Your task to perform on an android device: Search for "panasonic triple a" on walmart, select the first entry, and add it to the cart. Image 0: 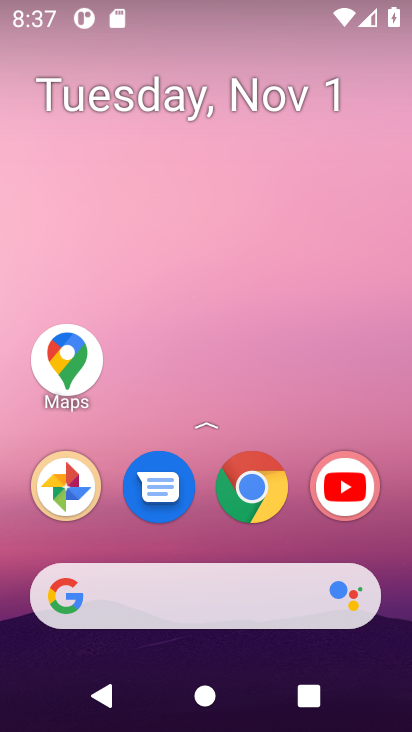
Step 0: press home button
Your task to perform on an android device: Search for "panasonic triple a" on walmart, select the first entry, and add it to the cart. Image 1: 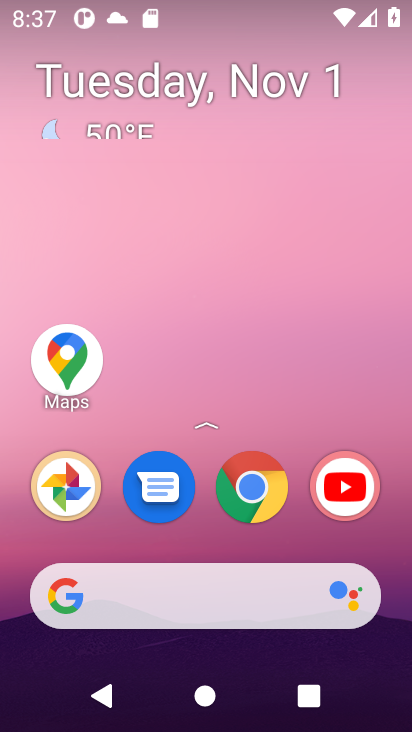
Step 1: drag from (225, 414) to (242, 1)
Your task to perform on an android device: Search for "panasonic triple a" on walmart, select the first entry, and add it to the cart. Image 2: 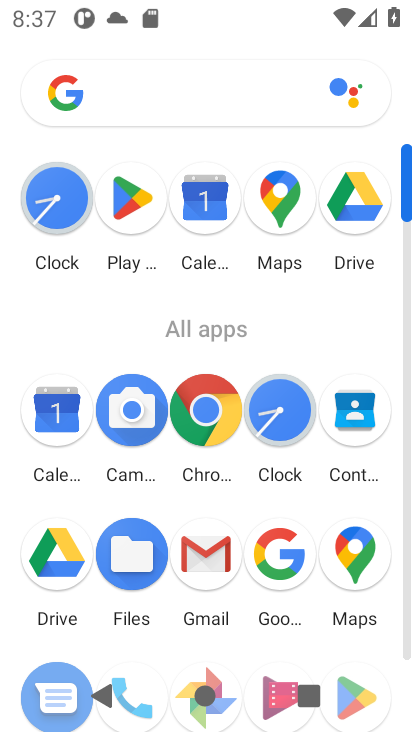
Step 2: click (204, 405)
Your task to perform on an android device: Search for "panasonic triple a" on walmart, select the first entry, and add it to the cart. Image 3: 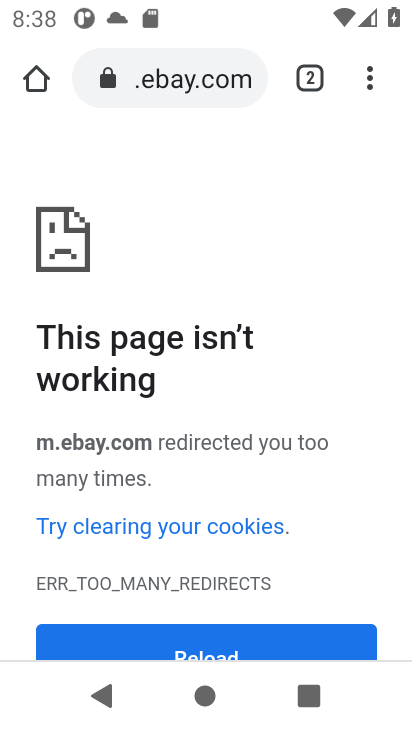
Step 3: click (200, 79)
Your task to perform on an android device: Search for "panasonic triple a" on walmart, select the first entry, and add it to the cart. Image 4: 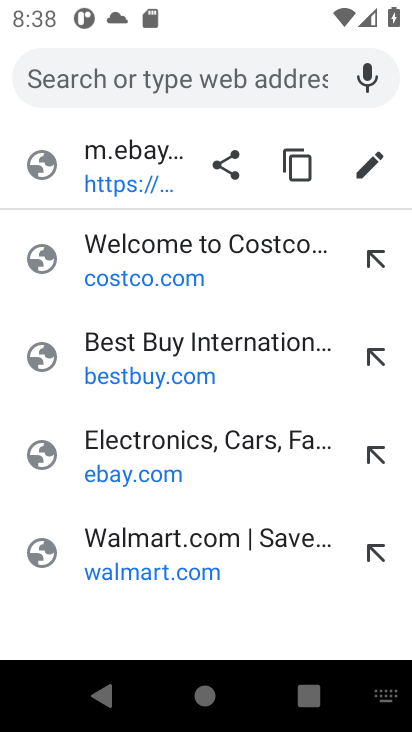
Step 4: click (177, 556)
Your task to perform on an android device: Search for "panasonic triple a" on walmart, select the first entry, and add it to the cart. Image 5: 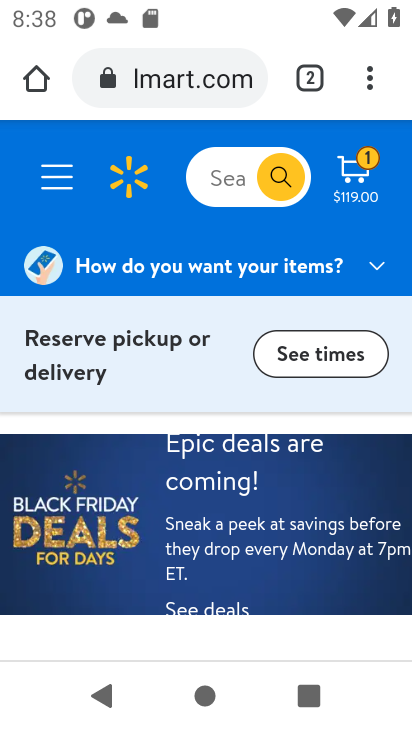
Step 5: click (230, 182)
Your task to perform on an android device: Search for "panasonic triple a" on walmart, select the first entry, and add it to the cart. Image 6: 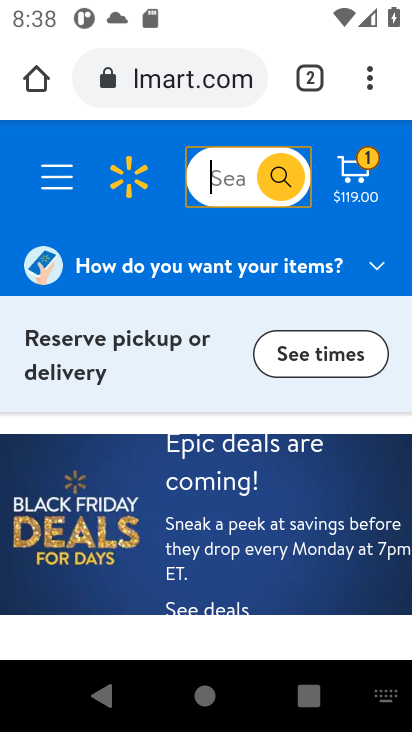
Step 6: type "panasonic triple a"
Your task to perform on an android device: Search for "panasonic triple a" on walmart, select the first entry, and add it to the cart. Image 7: 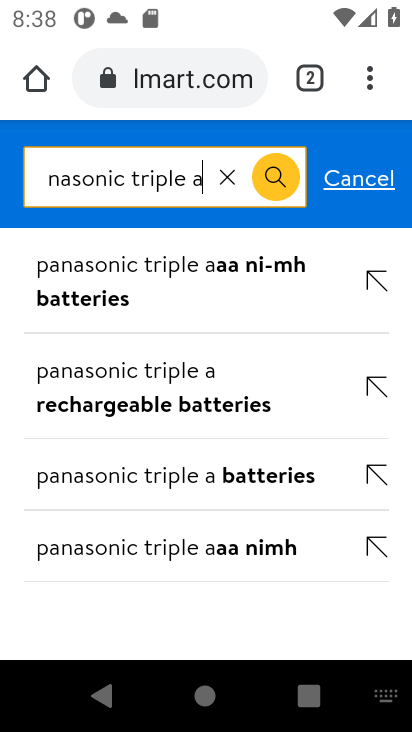
Step 7: click (147, 311)
Your task to perform on an android device: Search for "panasonic triple a" on walmart, select the first entry, and add it to the cart. Image 8: 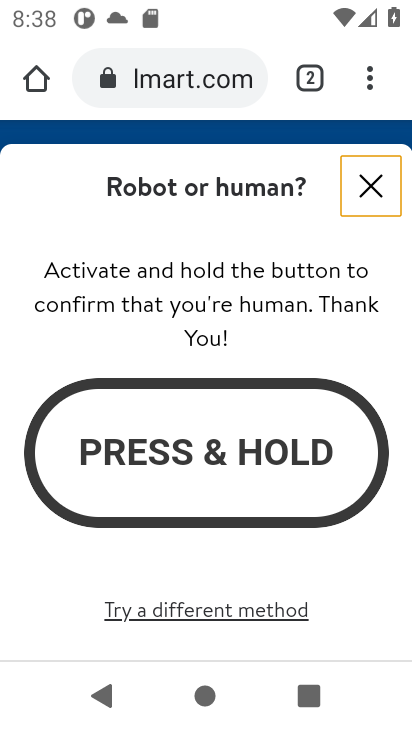
Step 8: press back button
Your task to perform on an android device: Search for "panasonic triple a" on walmart, select the first entry, and add it to the cart. Image 9: 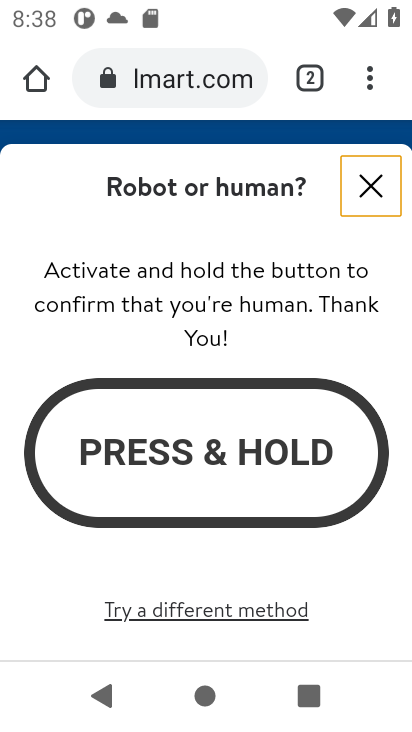
Step 9: click (369, 185)
Your task to perform on an android device: Search for "panasonic triple a" on walmart, select the first entry, and add it to the cart. Image 10: 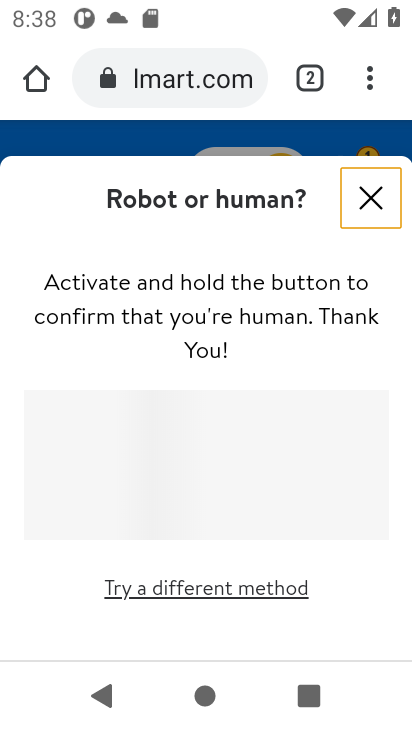
Step 10: click (371, 343)
Your task to perform on an android device: Search for "panasonic triple a" on walmart, select the first entry, and add it to the cart. Image 11: 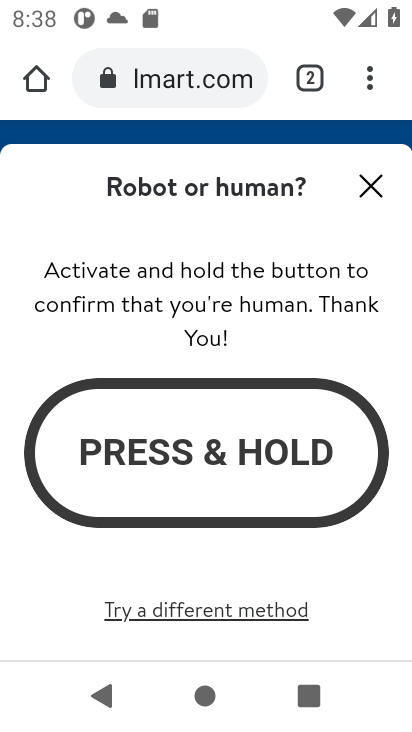
Step 11: click (236, 470)
Your task to perform on an android device: Search for "panasonic triple a" on walmart, select the first entry, and add it to the cart. Image 12: 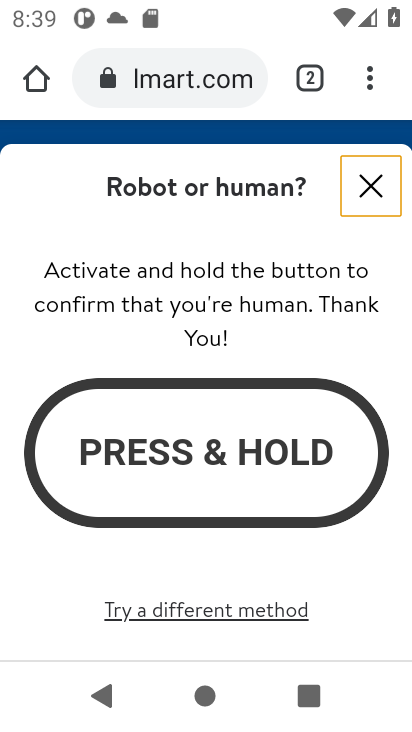
Step 12: click (372, 176)
Your task to perform on an android device: Search for "panasonic triple a" on walmart, select the first entry, and add it to the cart. Image 13: 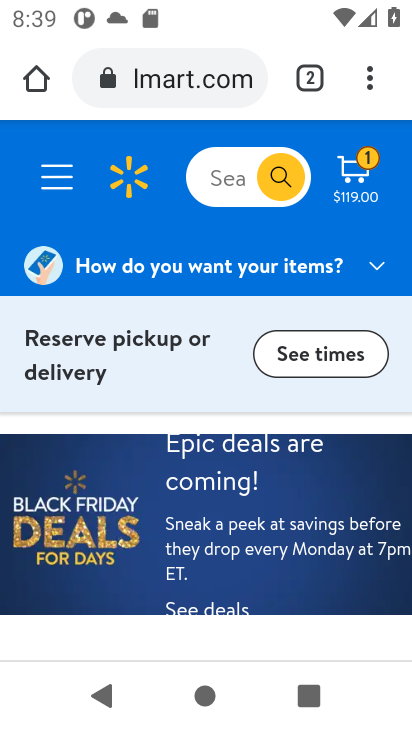
Step 13: click (240, 167)
Your task to perform on an android device: Search for "panasonic triple a" on walmart, select the first entry, and add it to the cart. Image 14: 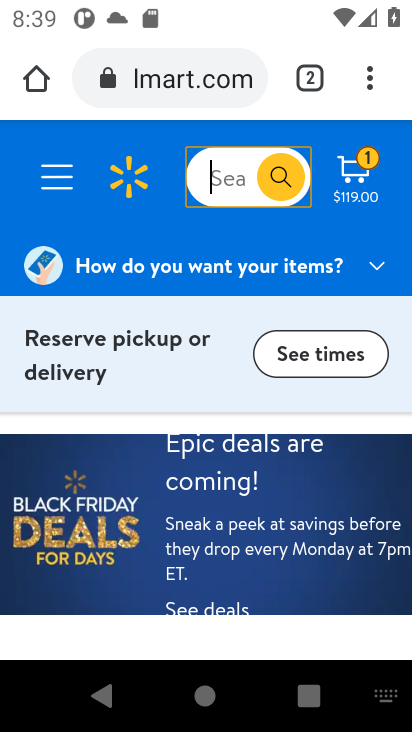
Step 14: type "panasonic triple a"
Your task to perform on an android device: Search for "panasonic triple a" on walmart, select the first entry, and add it to the cart. Image 15: 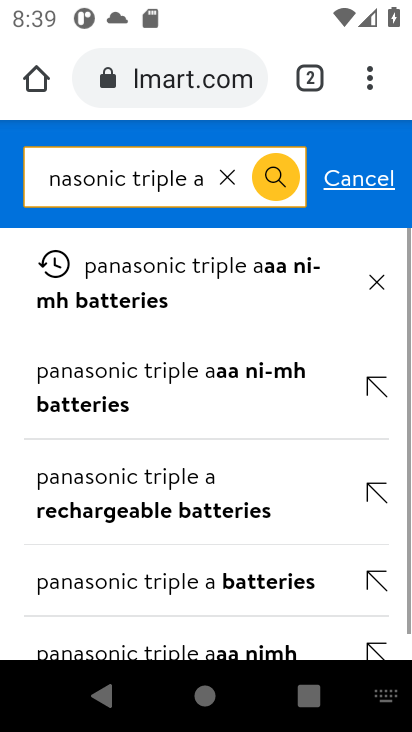
Step 15: click (235, 276)
Your task to perform on an android device: Search for "panasonic triple a" on walmart, select the first entry, and add it to the cart. Image 16: 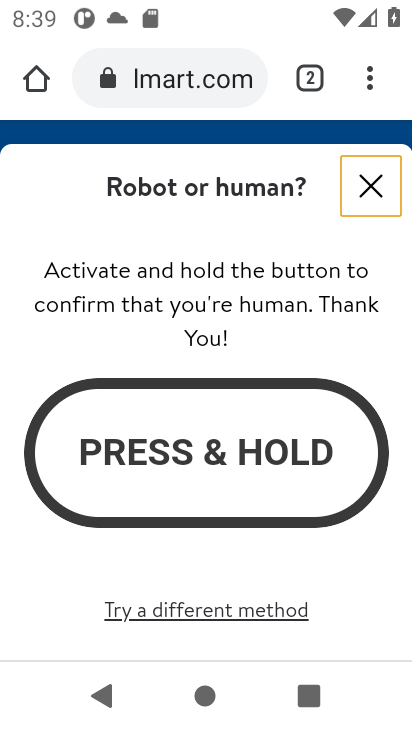
Step 16: click (369, 180)
Your task to perform on an android device: Search for "panasonic triple a" on walmart, select the first entry, and add it to the cart. Image 17: 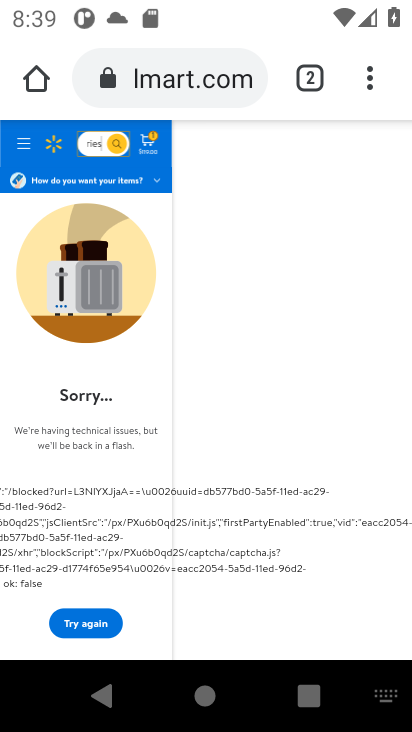
Step 17: task complete